Your task to perform on an android device: Open the web browser Image 0: 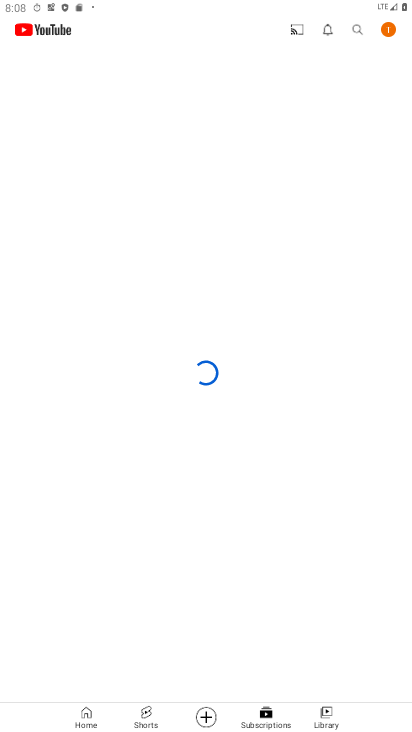
Step 0: press home button
Your task to perform on an android device: Open the web browser Image 1: 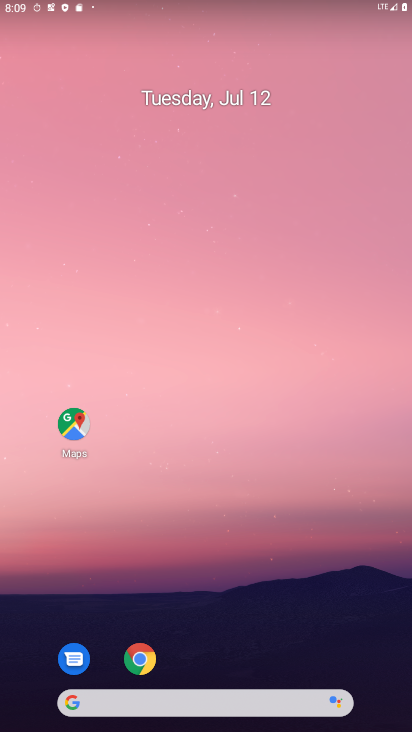
Step 1: drag from (344, 641) to (220, 138)
Your task to perform on an android device: Open the web browser Image 2: 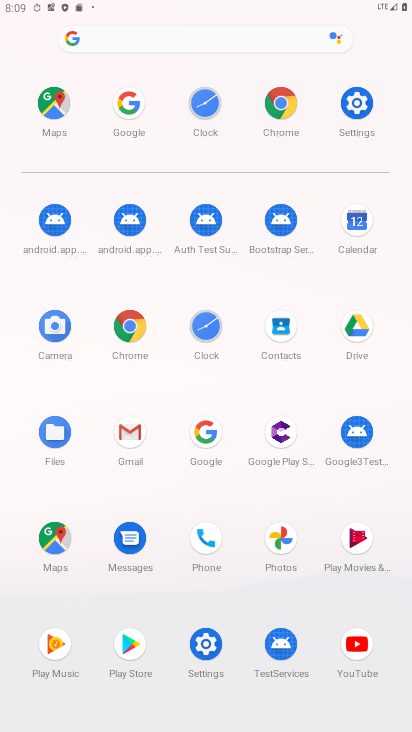
Step 2: click (212, 432)
Your task to perform on an android device: Open the web browser Image 3: 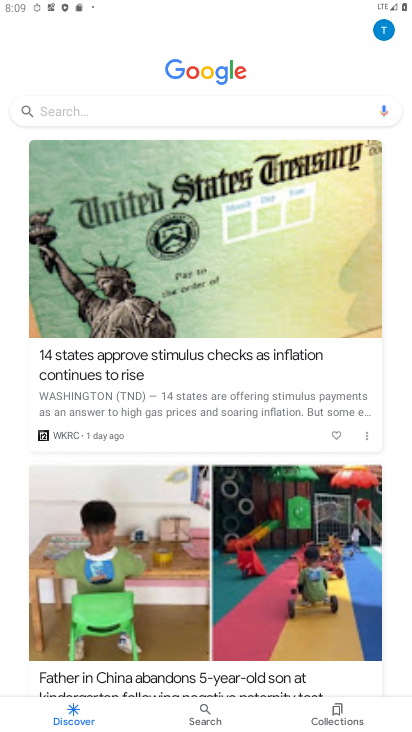
Step 3: click (119, 104)
Your task to perform on an android device: Open the web browser Image 4: 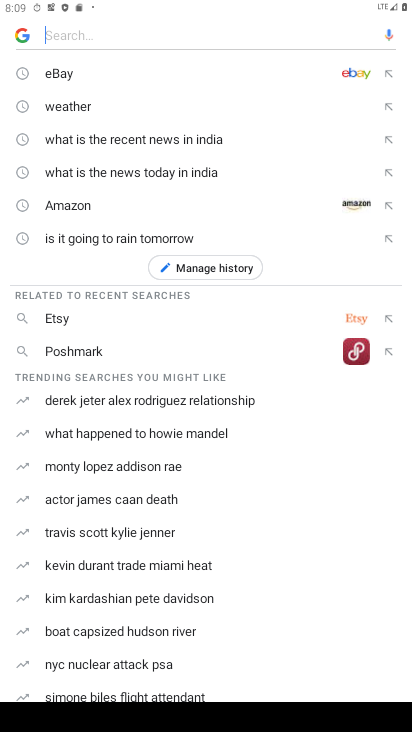
Step 4: type "web browser"
Your task to perform on an android device: Open the web browser Image 5: 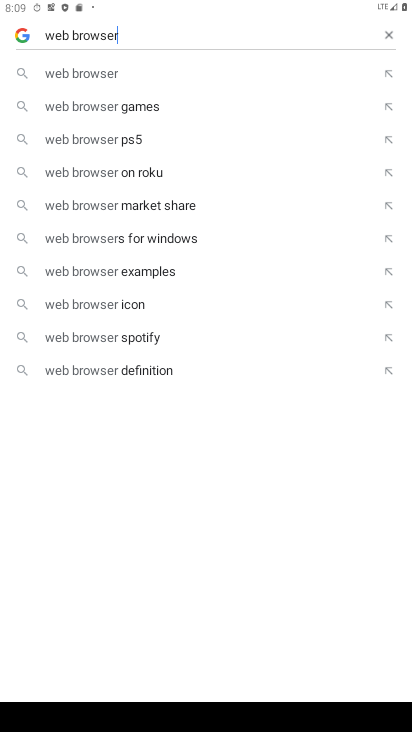
Step 5: click (110, 66)
Your task to perform on an android device: Open the web browser Image 6: 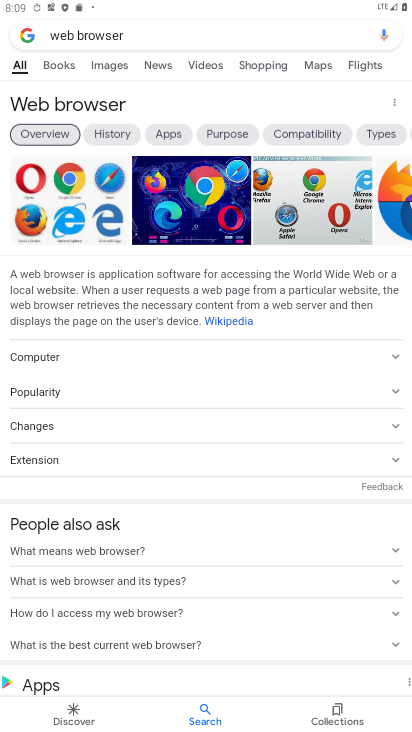
Step 6: task complete